Your task to perform on an android device: Open calendar and show me the second week of next month Image 0: 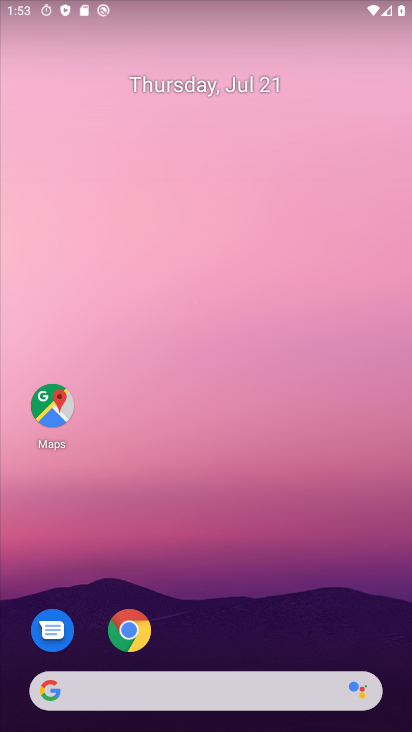
Step 0: drag from (203, 579) to (179, 137)
Your task to perform on an android device: Open calendar and show me the second week of next month Image 1: 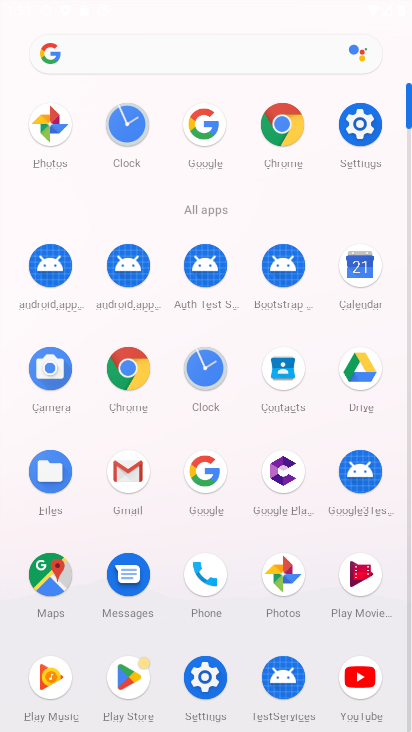
Step 1: click (363, 267)
Your task to perform on an android device: Open calendar and show me the second week of next month Image 2: 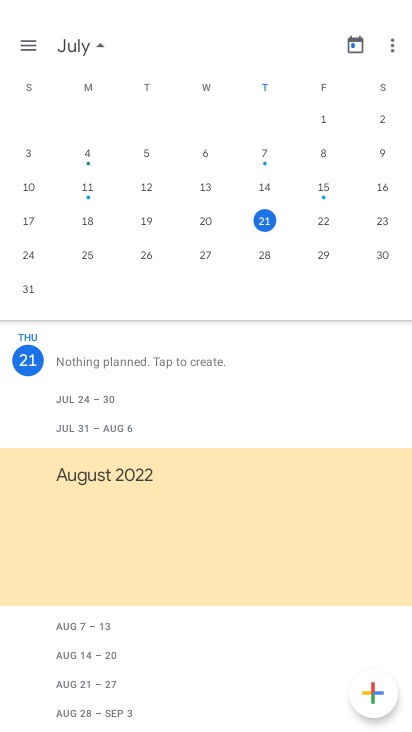
Step 2: drag from (379, 286) to (90, 273)
Your task to perform on an android device: Open calendar and show me the second week of next month Image 3: 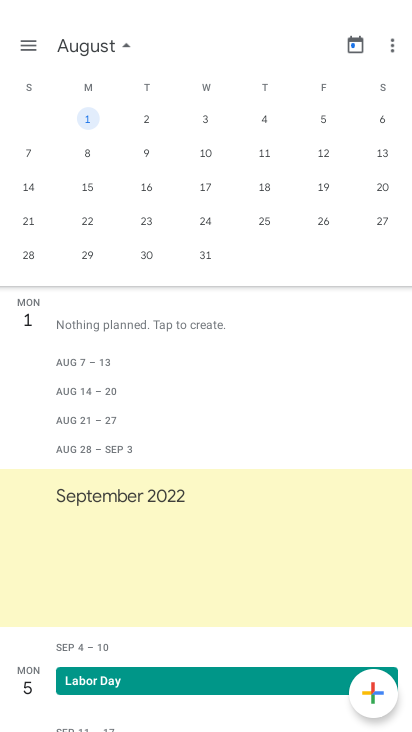
Step 3: click (209, 152)
Your task to perform on an android device: Open calendar and show me the second week of next month Image 4: 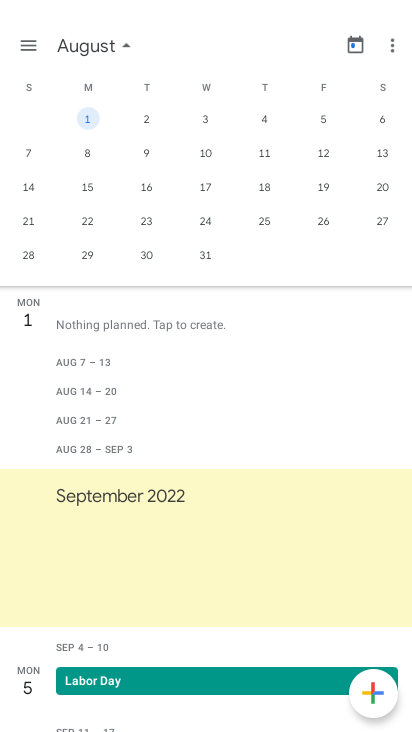
Step 4: click (204, 154)
Your task to perform on an android device: Open calendar and show me the second week of next month Image 5: 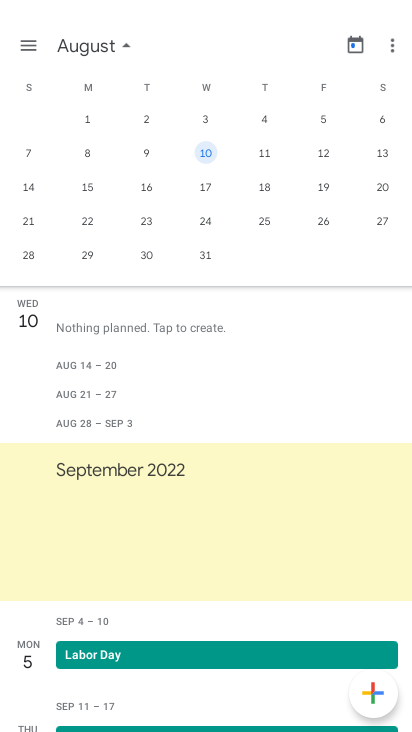
Step 5: task complete